Your task to perform on an android device: Set the phone to "Do not disturb". Image 0: 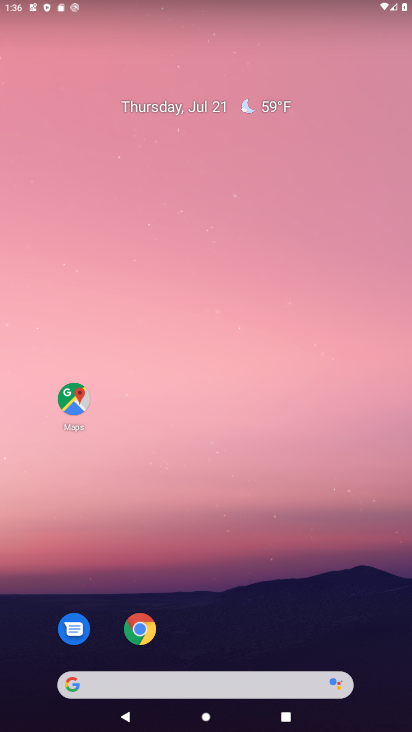
Step 0: drag from (393, 675) to (269, 69)
Your task to perform on an android device: Set the phone to "Do not disturb". Image 1: 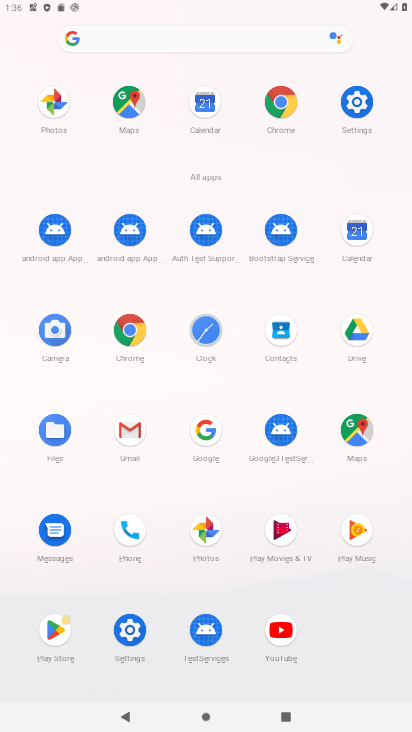
Step 1: click (130, 631)
Your task to perform on an android device: Set the phone to "Do not disturb". Image 2: 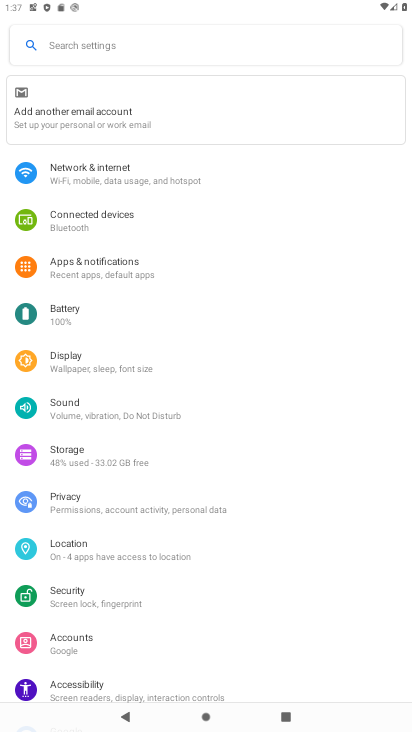
Step 2: click (65, 398)
Your task to perform on an android device: Set the phone to "Do not disturb". Image 3: 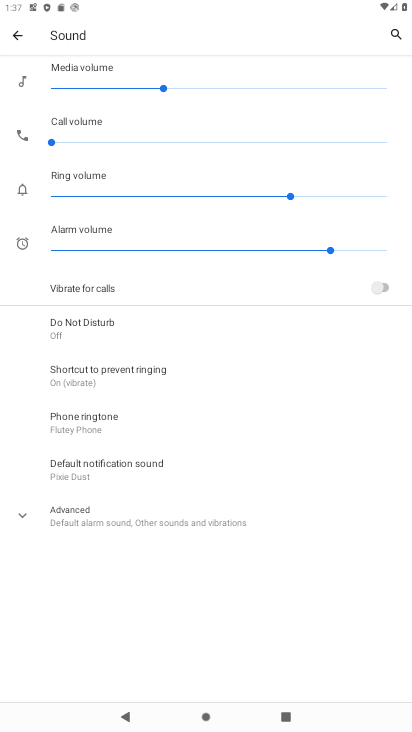
Step 3: click (61, 324)
Your task to perform on an android device: Set the phone to "Do not disturb". Image 4: 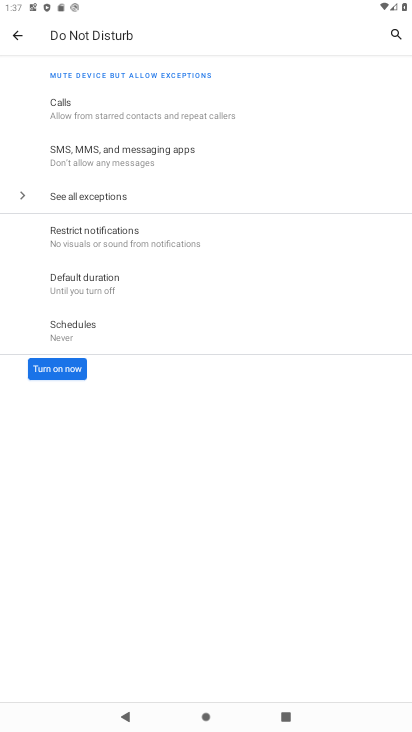
Step 4: click (59, 372)
Your task to perform on an android device: Set the phone to "Do not disturb". Image 5: 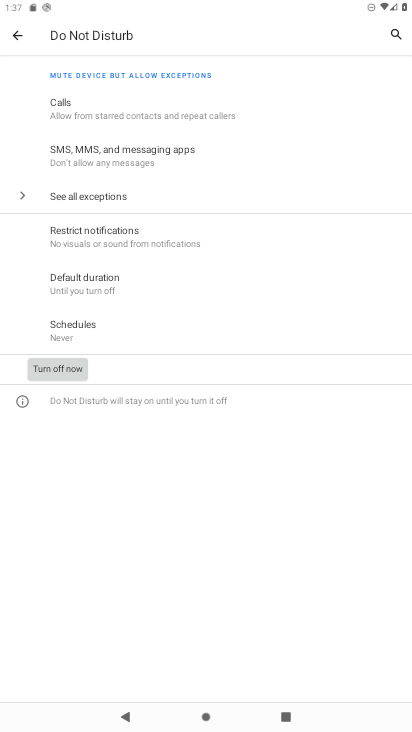
Step 5: task complete